Your task to perform on an android device: Open calendar and show me the fourth week of next month Image 0: 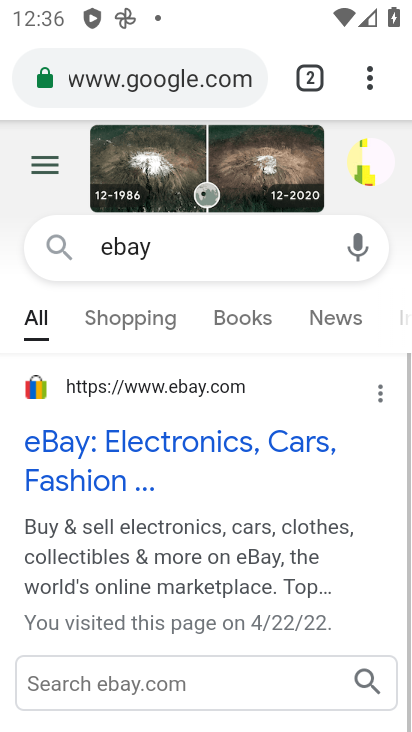
Step 0: press home button
Your task to perform on an android device: Open calendar and show me the fourth week of next month Image 1: 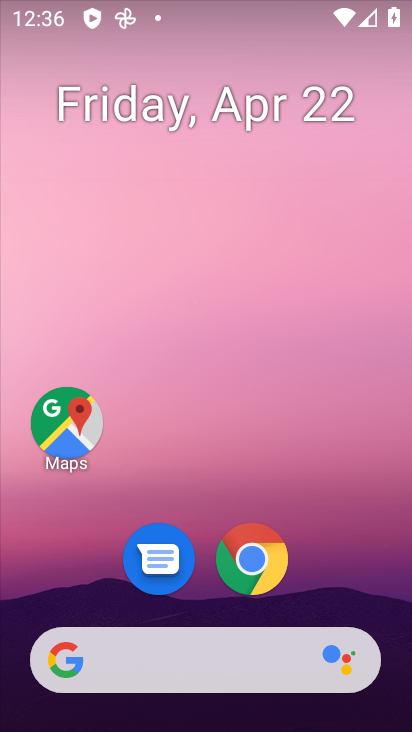
Step 1: drag from (343, 571) to (361, 83)
Your task to perform on an android device: Open calendar and show me the fourth week of next month Image 2: 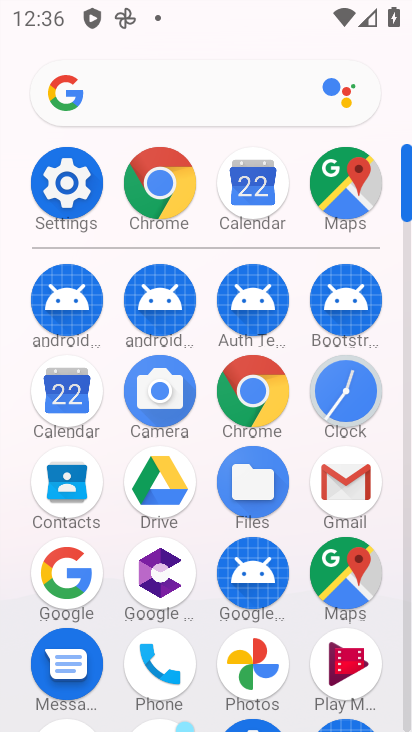
Step 2: click (58, 404)
Your task to perform on an android device: Open calendar and show me the fourth week of next month Image 3: 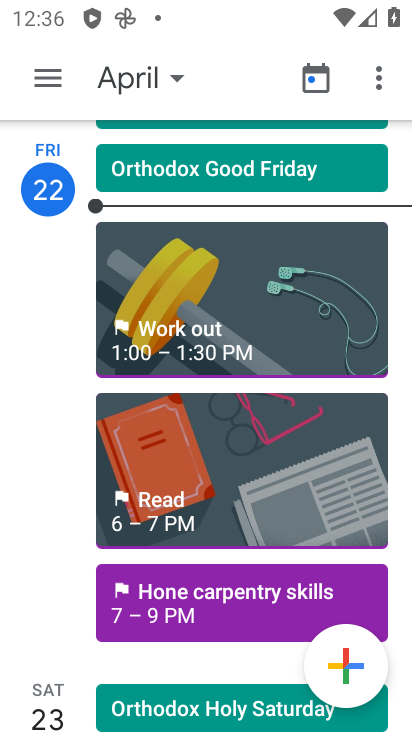
Step 3: click (170, 79)
Your task to perform on an android device: Open calendar and show me the fourth week of next month Image 4: 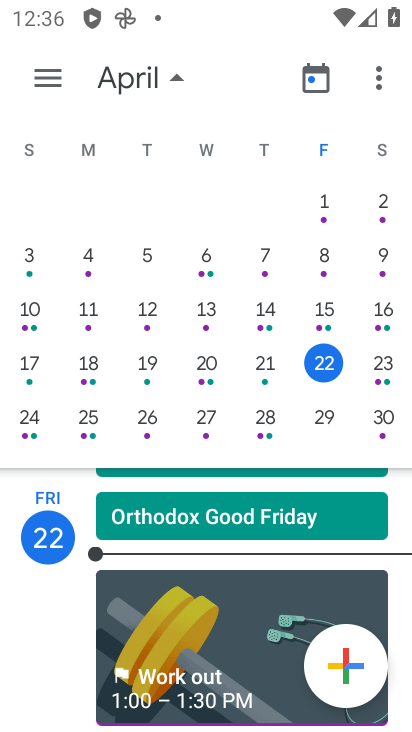
Step 4: drag from (373, 121) to (13, 140)
Your task to perform on an android device: Open calendar and show me the fourth week of next month Image 5: 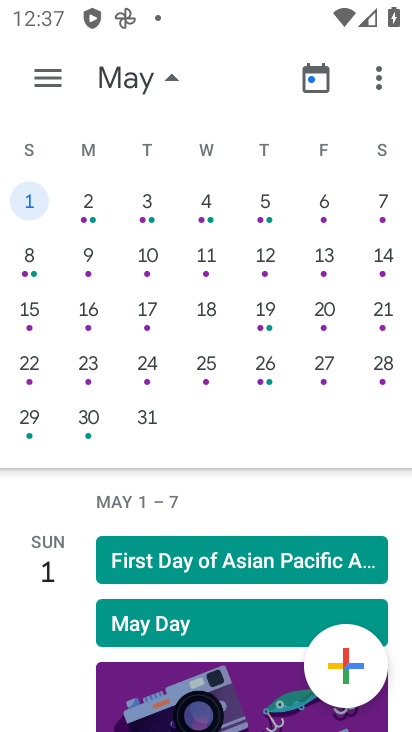
Step 5: click (92, 357)
Your task to perform on an android device: Open calendar and show me the fourth week of next month Image 6: 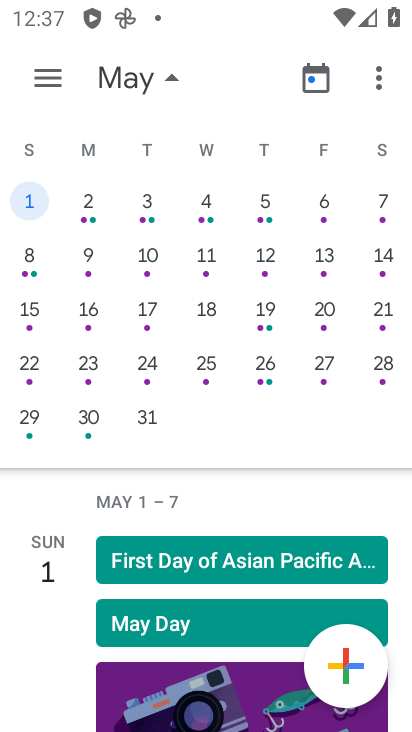
Step 6: click (94, 369)
Your task to perform on an android device: Open calendar and show me the fourth week of next month Image 7: 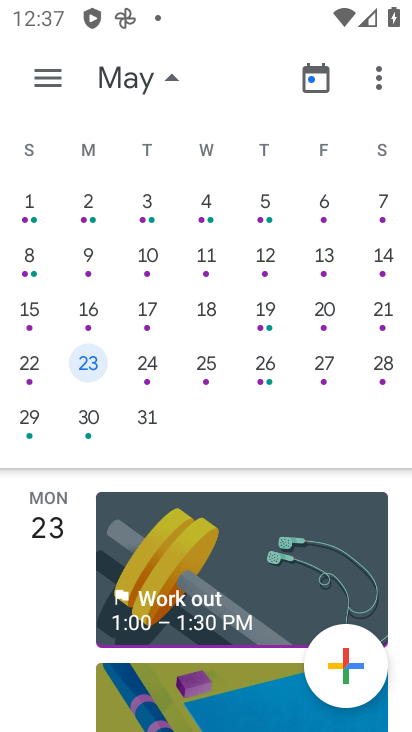
Step 7: task complete